Your task to perform on an android device: turn off sleep mode Image 0: 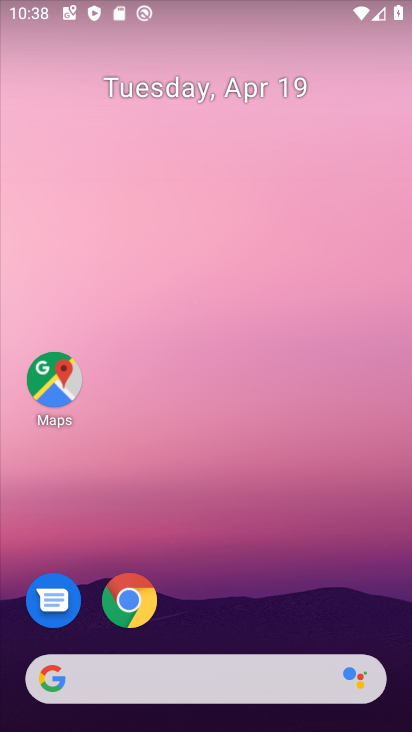
Step 0: drag from (196, 625) to (349, 26)
Your task to perform on an android device: turn off sleep mode Image 1: 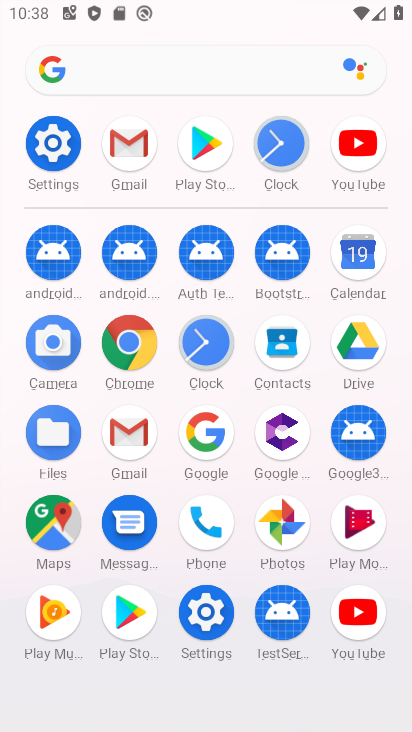
Step 1: click (51, 150)
Your task to perform on an android device: turn off sleep mode Image 2: 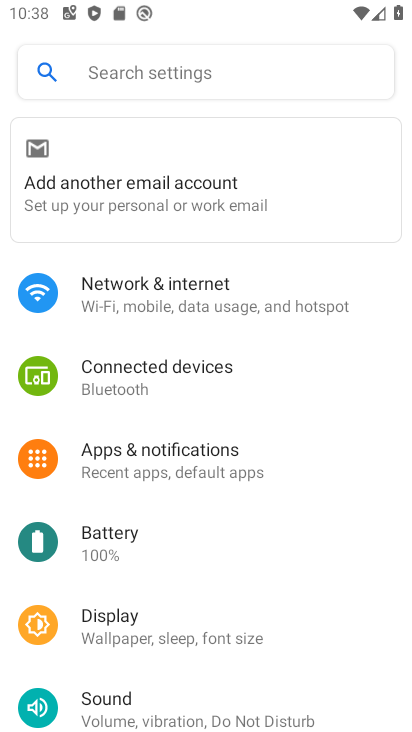
Step 2: click (198, 69)
Your task to perform on an android device: turn off sleep mode Image 3: 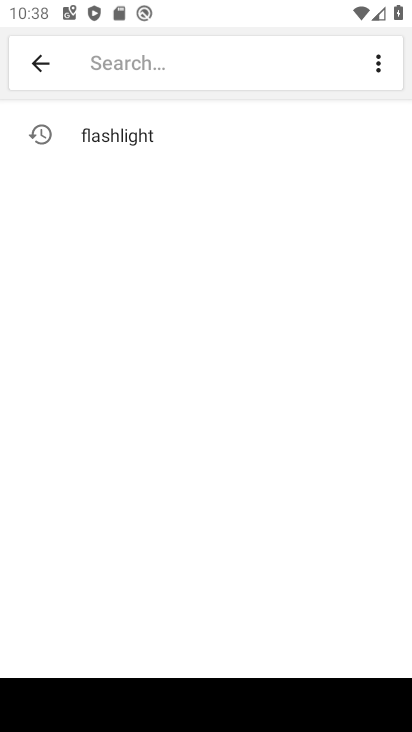
Step 3: type "sleep mode"
Your task to perform on an android device: turn off sleep mode Image 4: 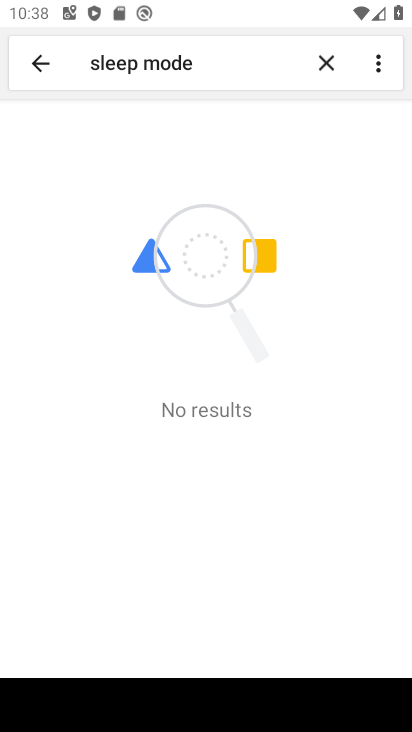
Step 4: task complete